Your task to perform on an android device: Go to Google Image 0: 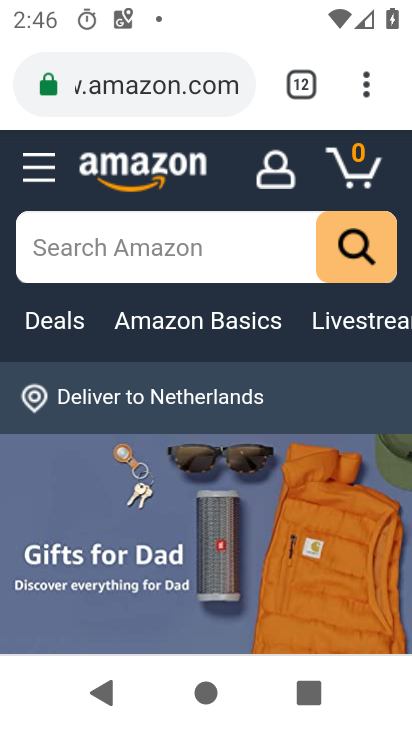
Step 0: press home button
Your task to perform on an android device: Go to Google Image 1: 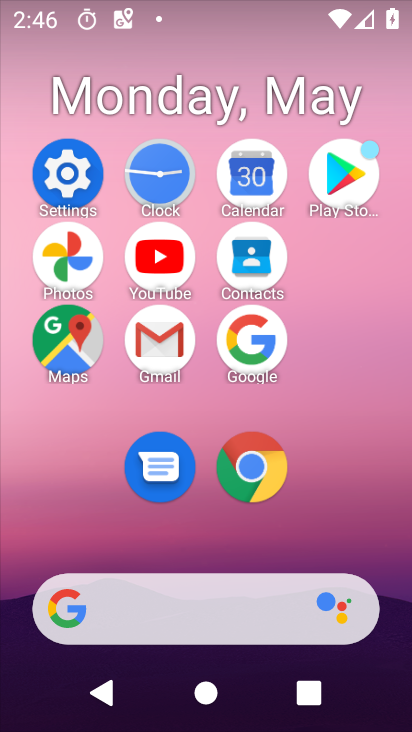
Step 1: click (235, 341)
Your task to perform on an android device: Go to Google Image 2: 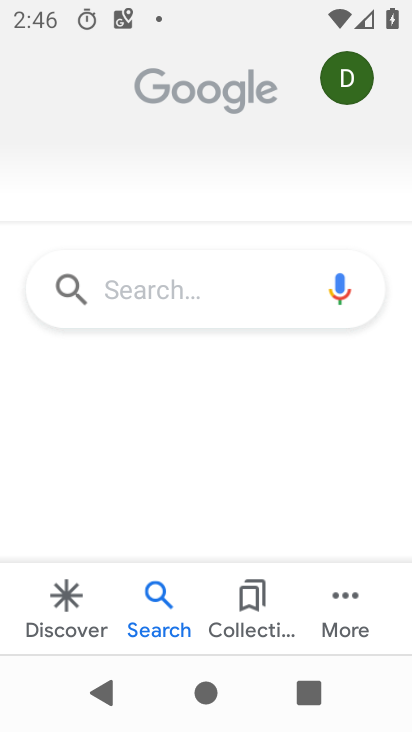
Step 2: task complete